Your task to perform on an android device: turn on location history Image 0: 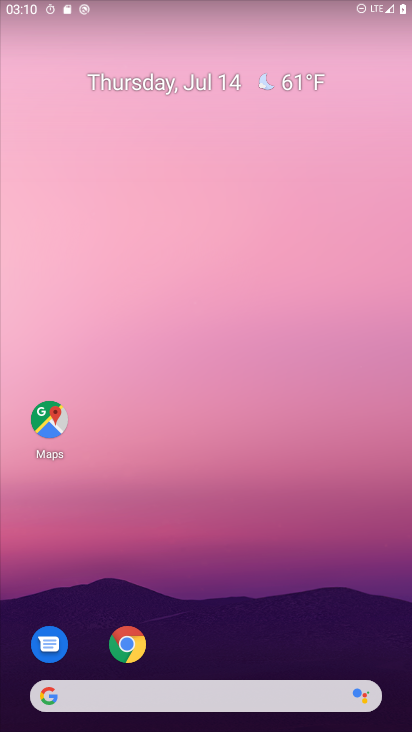
Step 0: drag from (324, 583) to (266, 38)
Your task to perform on an android device: turn on location history Image 1: 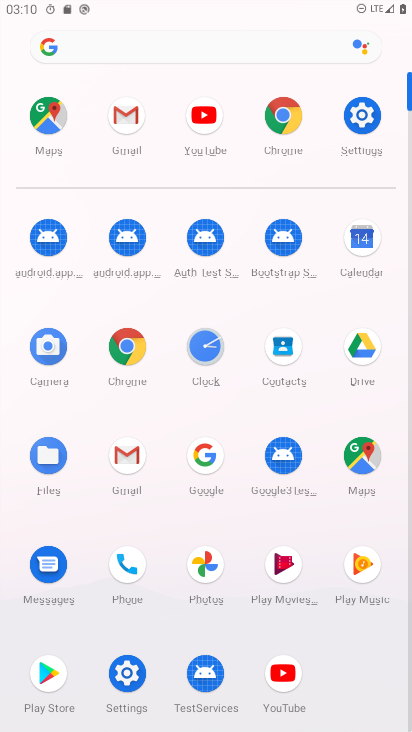
Step 1: click (354, 111)
Your task to perform on an android device: turn on location history Image 2: 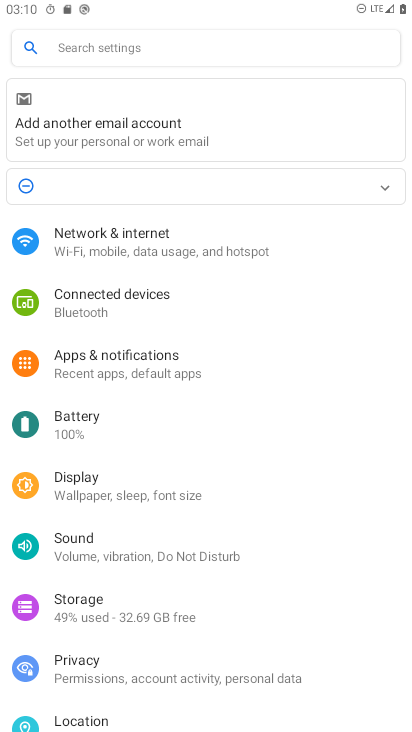
Step 2: drag from (164, 696) to (210, 264)
Your task to perform on an android device: turn on location history Image 3: 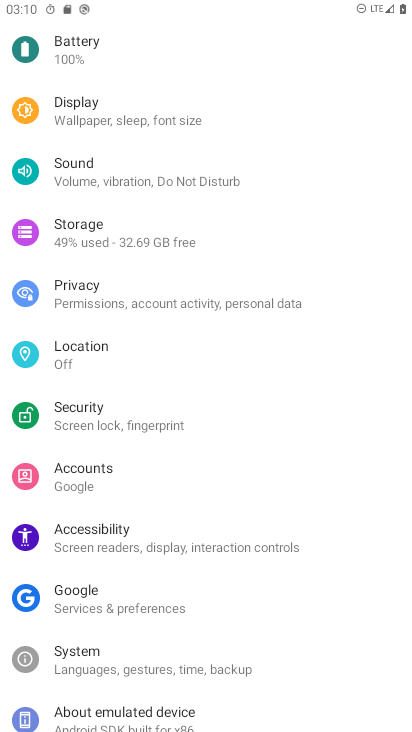
Step 3: click (84, 363)
Your task to perform on an android device: turn on location history Image 4: 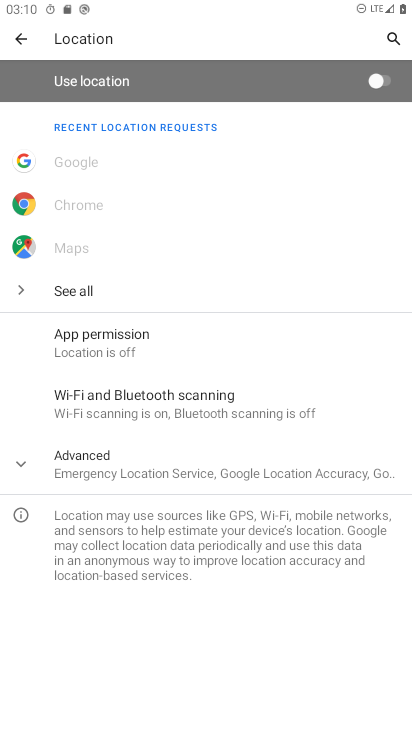
Step 4: click (140, 469)
Your task to perform on an android device: turn on location history Image 5: 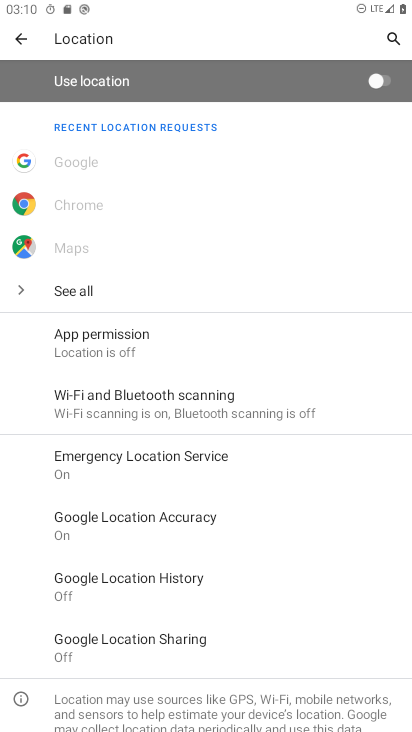
Step 5: click (168, 583)
Your task to perform on an android device: turn on location history Image 6: 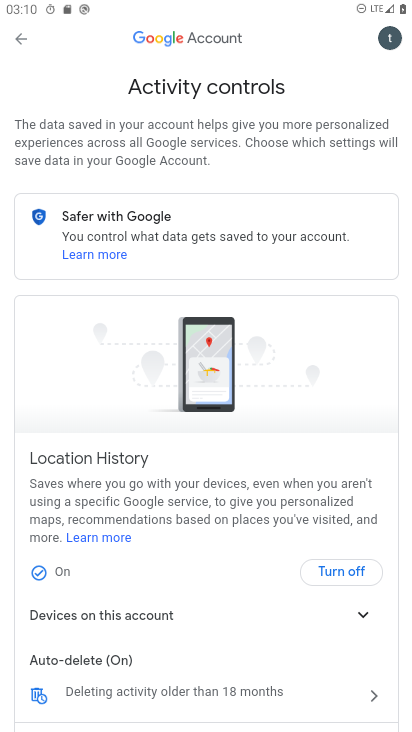
Step 6: click (332, 569)
Your task to perform on an android device: turn on location history Image 7: 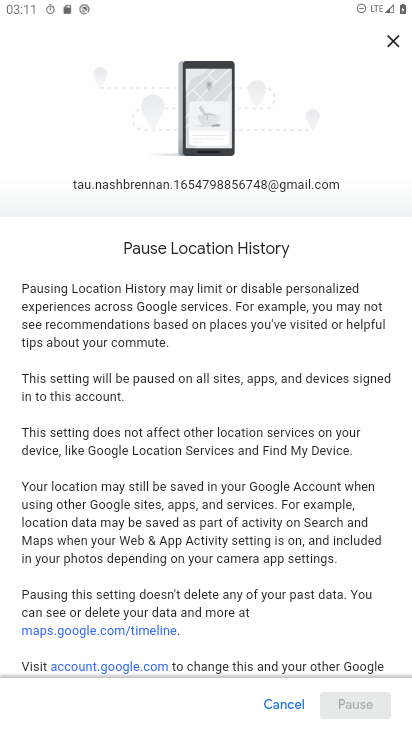
Step 7: click (391, 39)
Your task to perform on an android device: turn on location history Image 8: 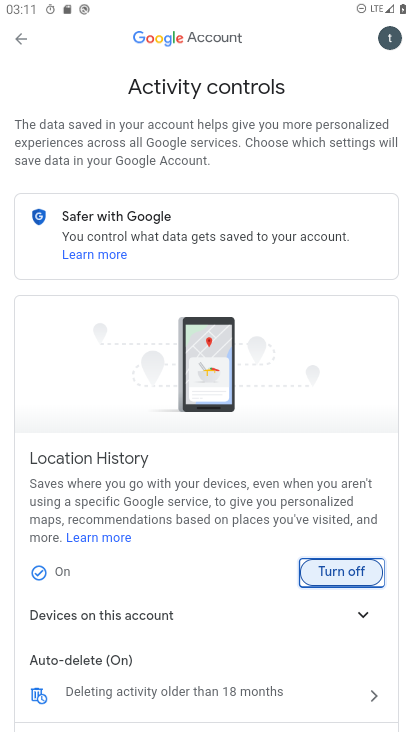
Step 8: task complete